Your task to perform on an android device: Search for good Greek restaurants Image 0: 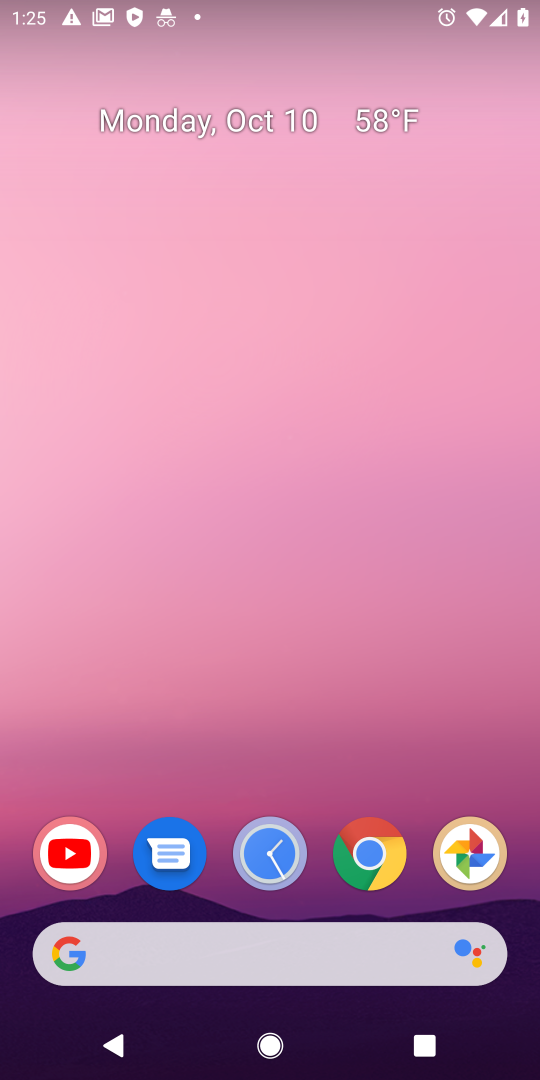
Step 0: click (367, 869)
Your task to perform on an android device: Search for good Greek restaurants Image 1: 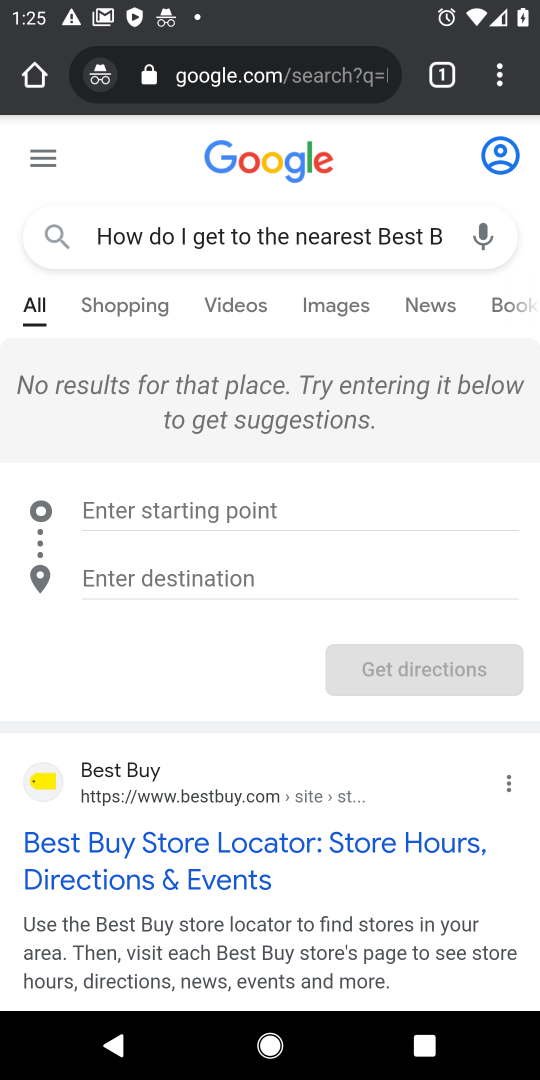
Step 1: click (317, 240)
Your task to perform on an android device: Search for good Greek restaurants Image 2: 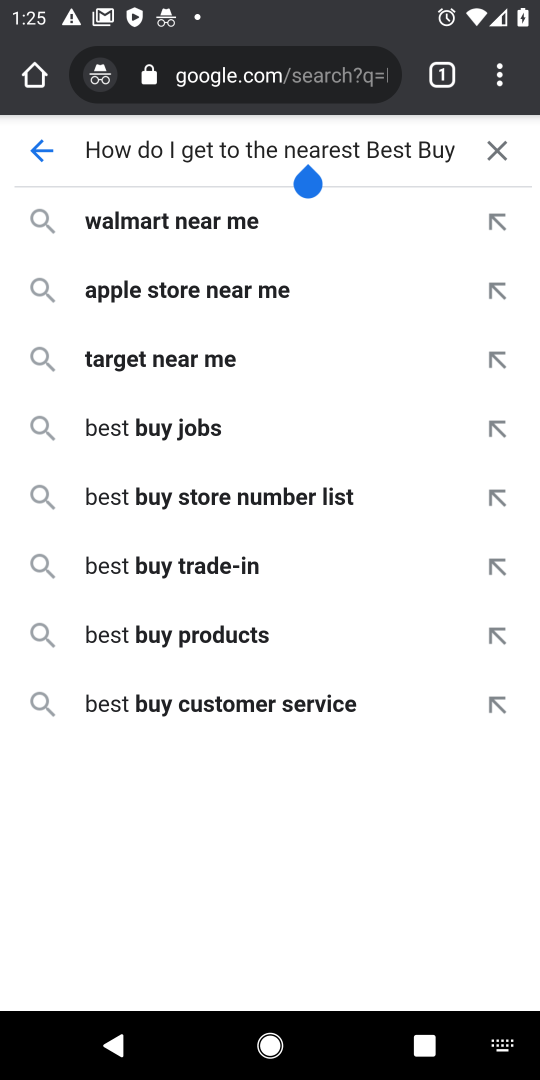
Step 2: click (516, 148)
Your task to perform on an android device: Search for good Greek restaurants Image 3: 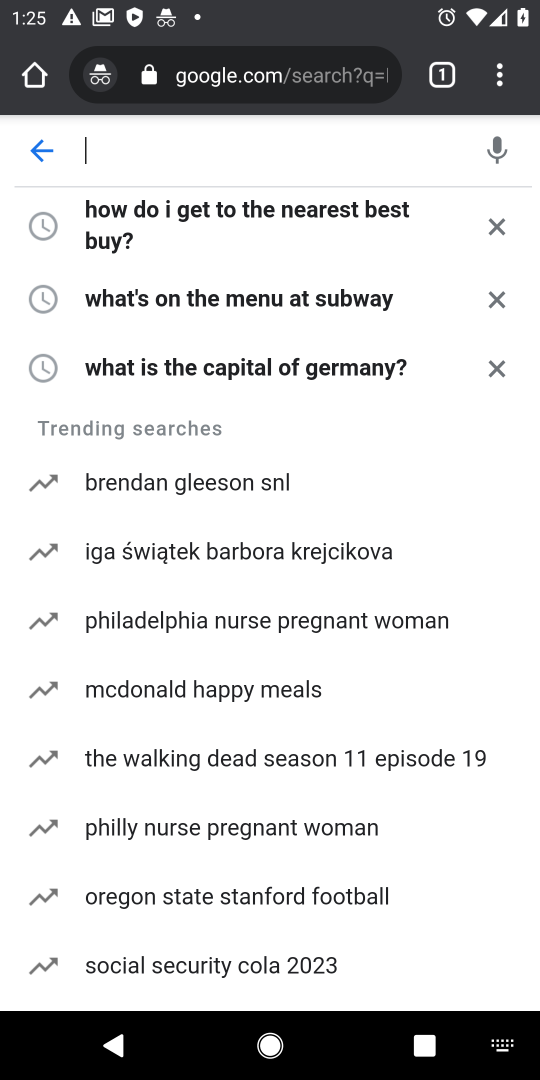
Step 3: type "good Greek restaurants"
Your task to perform on an android device: Search for good Greek restaurants Image 4: 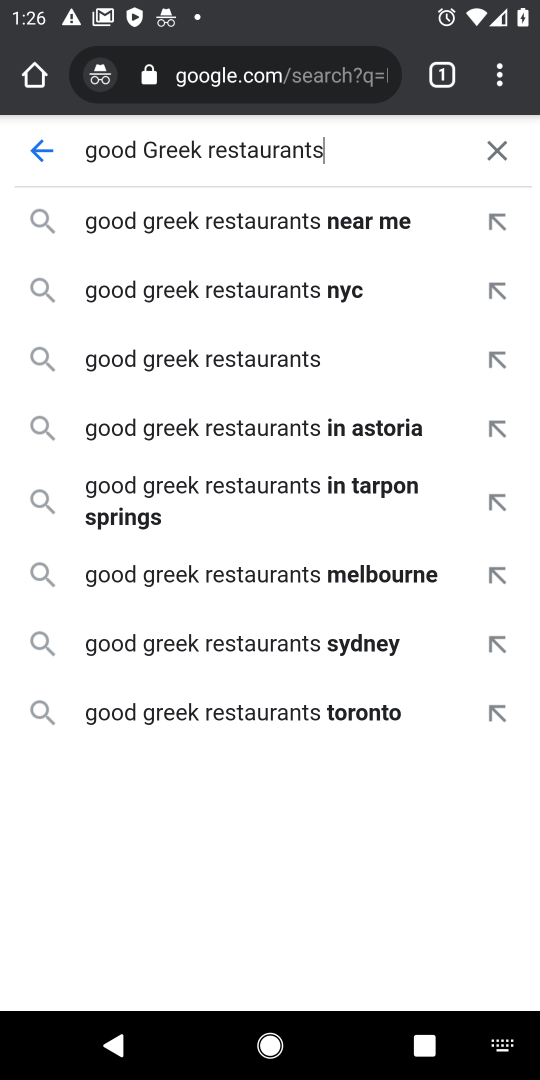
Step 4: press enter
Your task to perform on an android device: Search for good Greek restaurants Image 5: 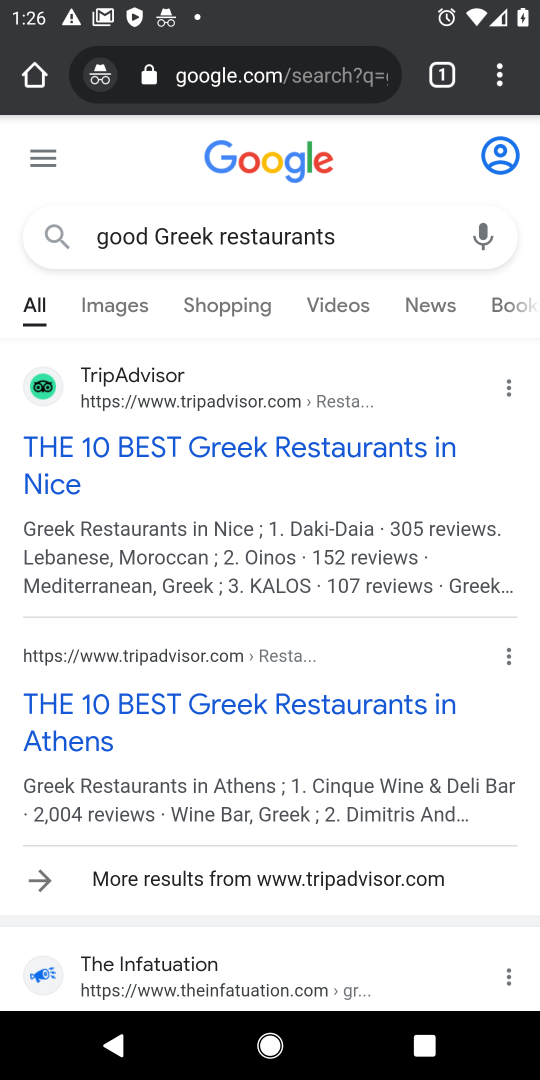
Step 5: task complete